Your task to perform on an android device: What is the recent news? Image 0: 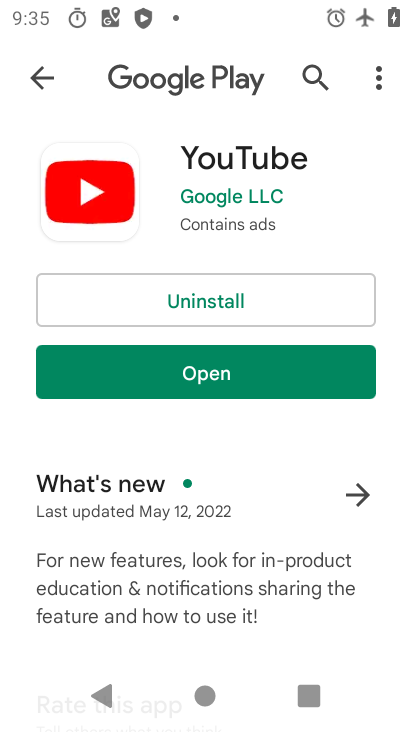
Step 0: click (177, 367)
Your task to perform on an android device: What is the recent news? Image 1: 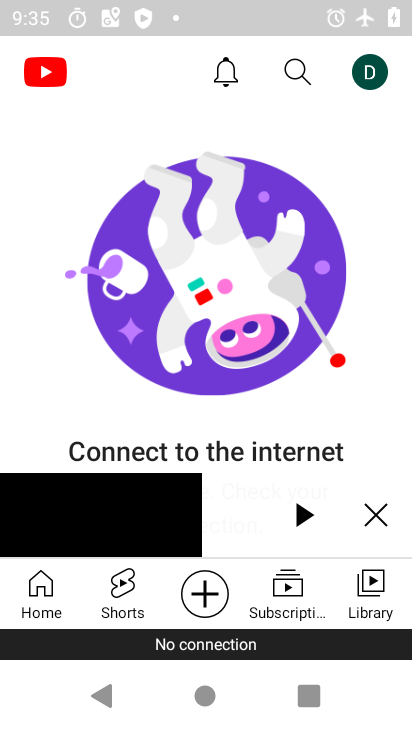
Step 1: press home button
Your task to perform on an android device: What is the recent news? Image 2: 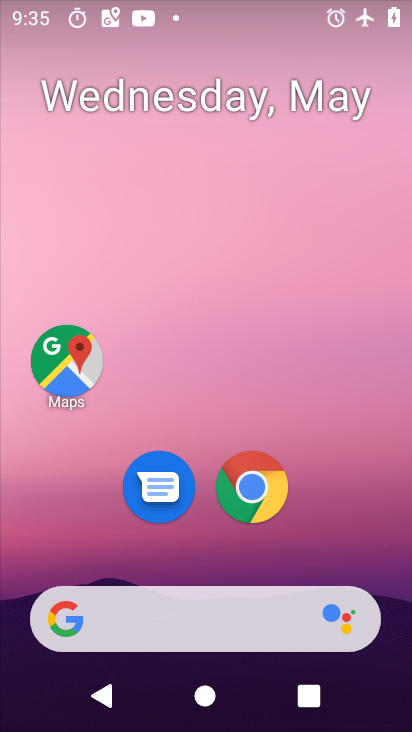
Step 2: drag from (212, 555) to (212, 207)
Your task to perform on an android device: What is the recent news? Image 3: 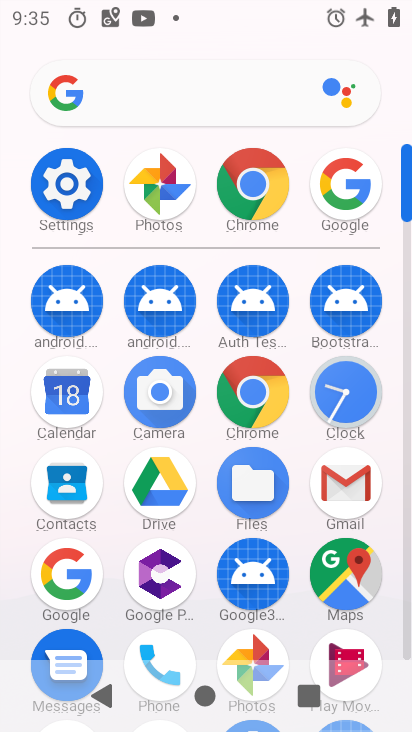
Step 3: click (54, 559)
Your task to perform on an android device: What is the recent news? Image 4: 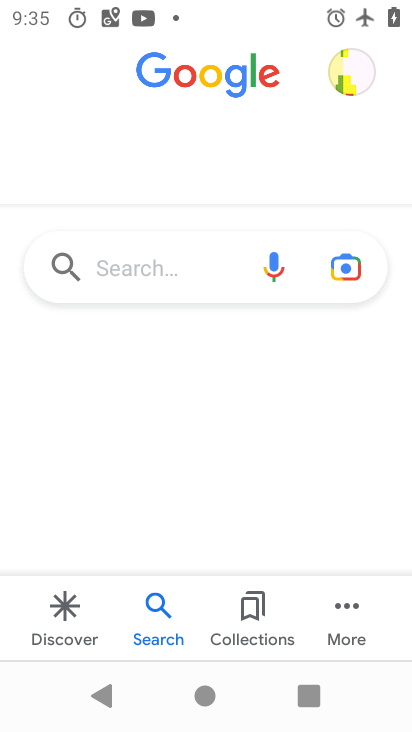
Step 4: click (153, 259)
Your task to perform on an android device: What is the recent news? Image 5: 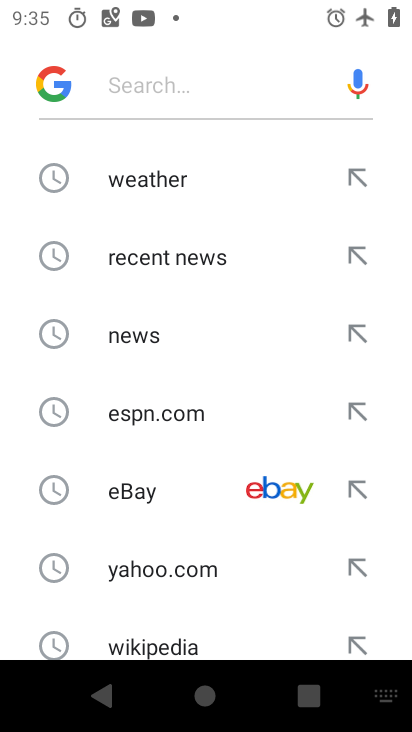
Step 5: click (161, 315)
Your task to perform on an android device: What is the recent news? Image 6: 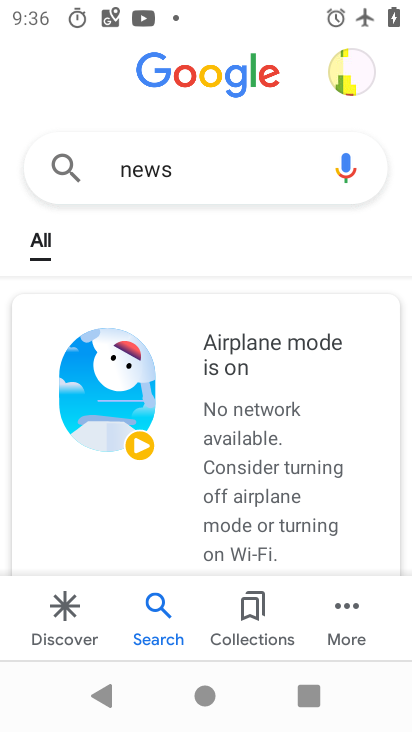
Step 6: task complete